Your task to perform on an android device: change the clock display to analog Image 0: 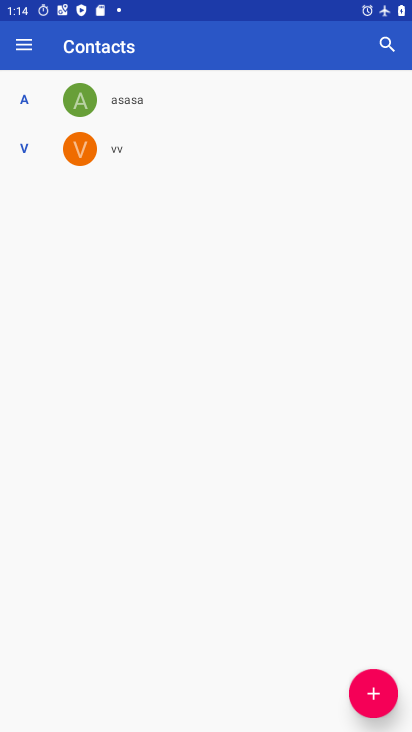
Step 0: press home button
Your task to perform on an android device: change the clock display to analog Image 1: 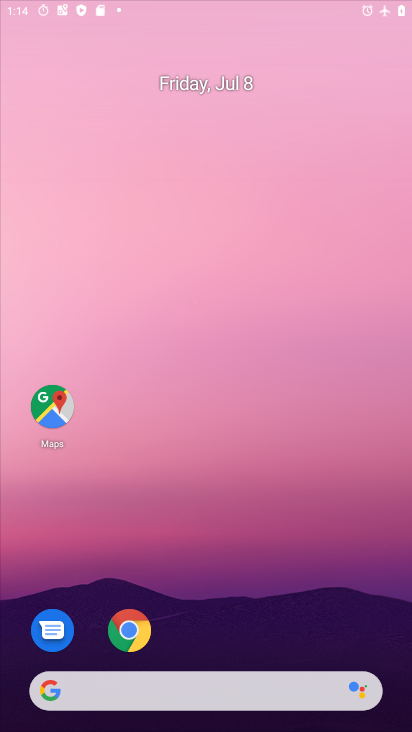
Step 1: drag from (253, 378) to (272, 151)
Your task to perform on an android device: change the clock display to analog Image 2: 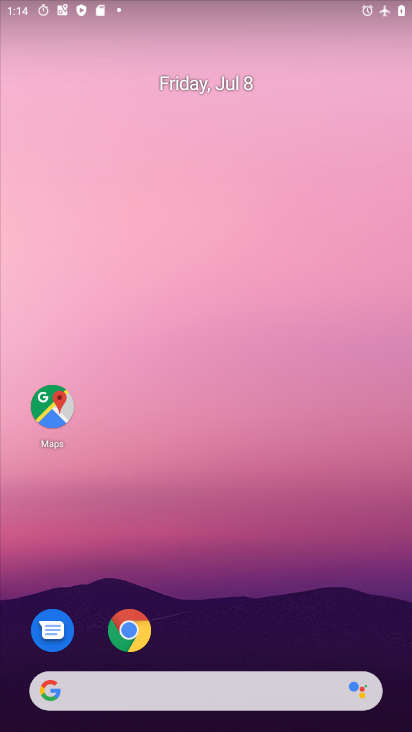
Step 2: drag from (200, 605) to (200, 211)
Your task to perform on an android device: change the clock display to analog Image 3: 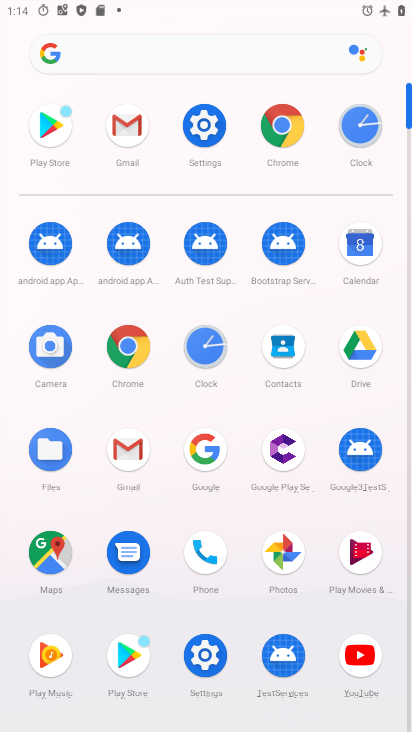
Step 3: click (230, 356)
Your task to perform on an android device: change the clock display to analog Image 4: 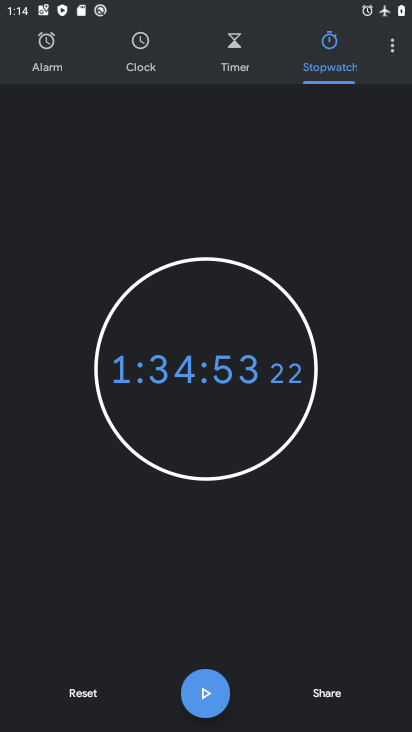
Step 4: click (386, 59)
Your task to perform on an android device: change the clock display to analog Image 5: 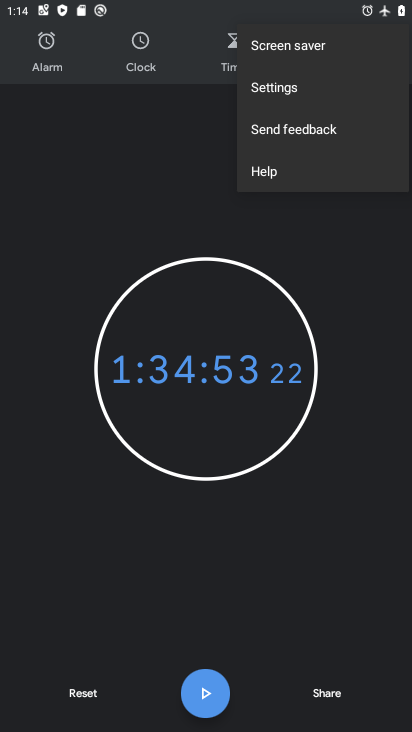
Step 5: click (347, 86)
Your task to perform on an android device: change the clock display to analog Image 6: 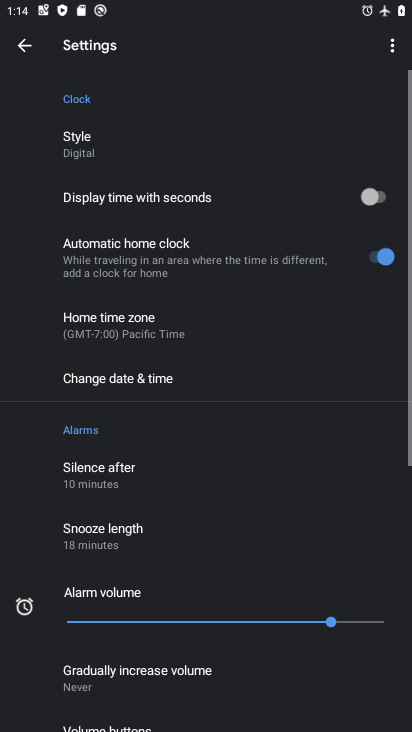
Step 6: click (112, 160)
Your task to perform on an android device: change the clock display to analog Image 7: 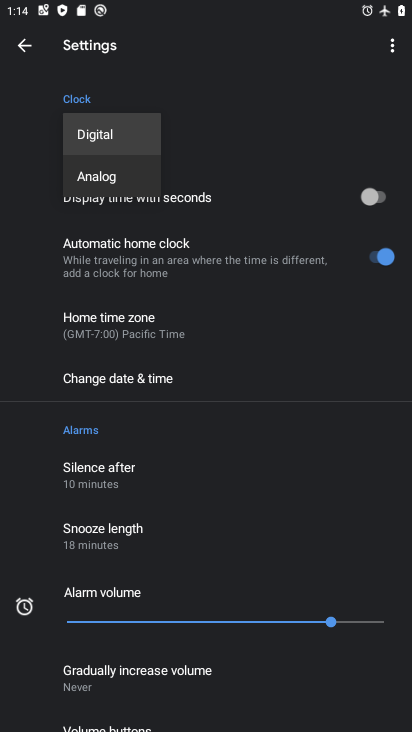
Step 7: click (121, 179)
Your task to perform on an android device: change the clock display to analog Image 8: 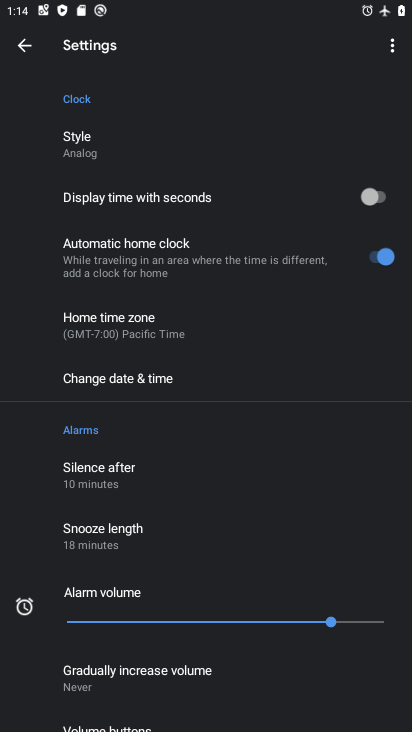
Step 8: task complete